Your task to perform on an android device: Go to Google Image 0: 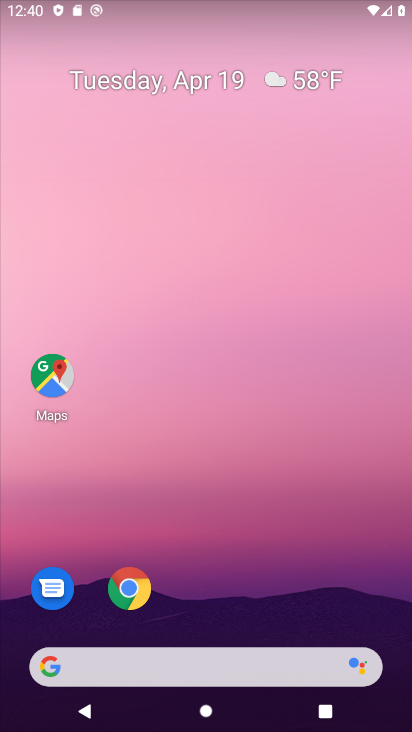
Step 0: drag from (189, 547) to (189, 100)
Your task to perform on an android device: Go to Google Image 1: 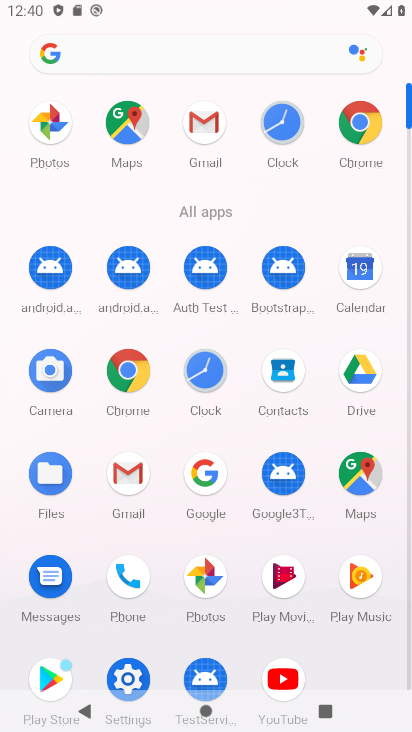
Step 1: click (200, 488)
Your task to perform on an android device: Go to Google Image 2: 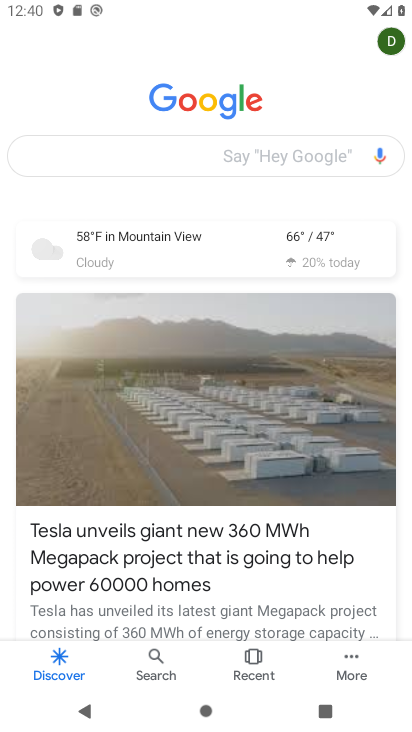
Step 2: task complete